Your task to perform on an android device: Open my contact list Image 0: 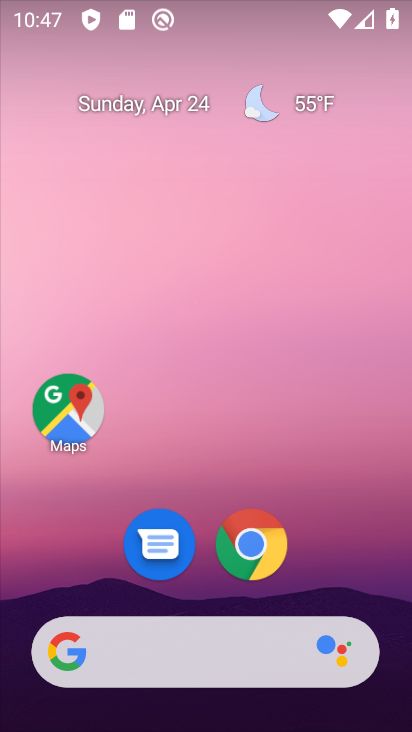
Step 0: drag from (336, 532) to (304, 190)
Your task to perform on an android device: Open my contact list Image 1: 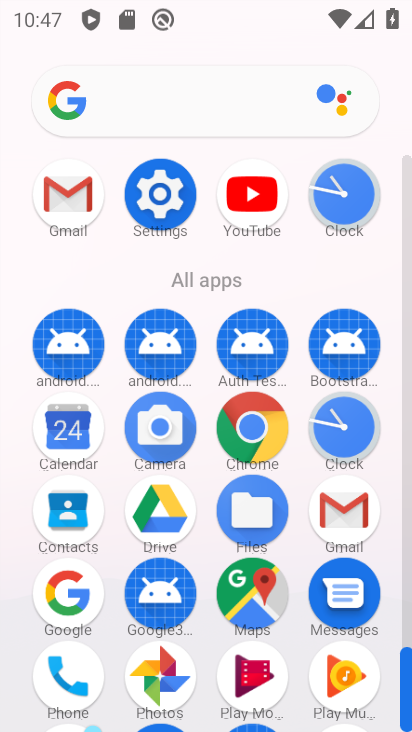
Step 1: click (72, 517)
Your task to perform on an android device: Open my contact list Image 2: 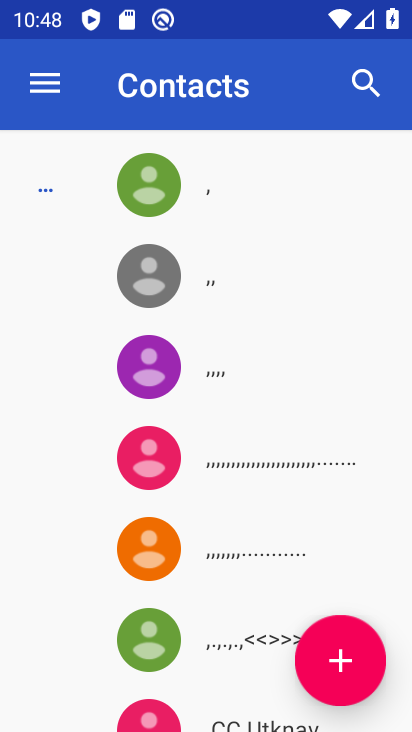
Step 2: drag from (81, 611) to (96, 243)
Your task to perform on an android device: Open my contact list Image 3: 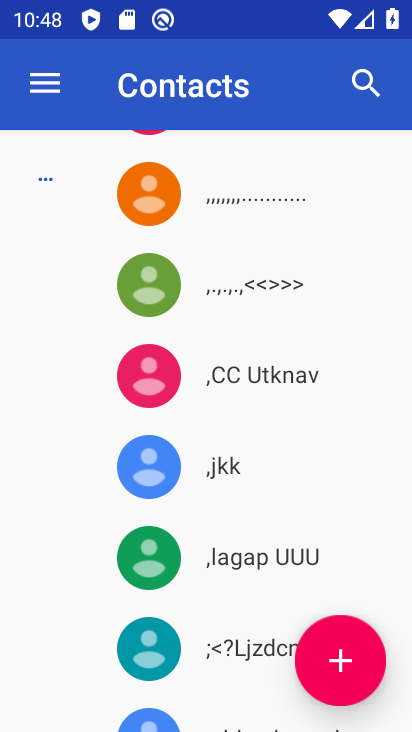
Step 3: drag from (86, 608) to (80, 291)
Your task to perform on an android device: Open my contact list Image 4: 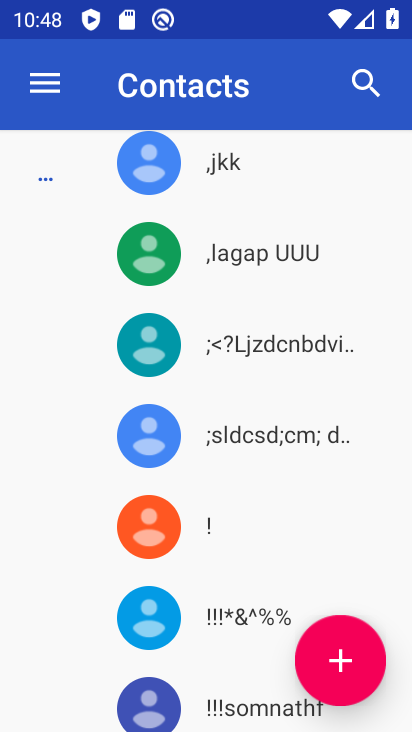
Step 4: drag from (54, 650) to (88, 281)
Your task to perform on an android device: Open my contact list Image 5: 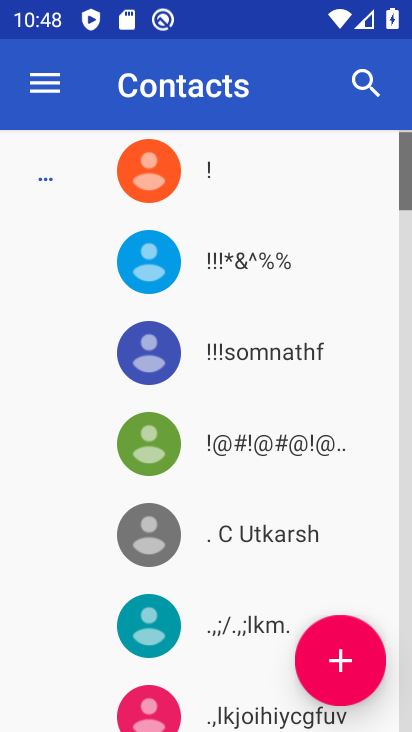
Step 5: drag from (60, 659) to (132, 332)
Your task to perform on an android device: Open my contact list Image 6: 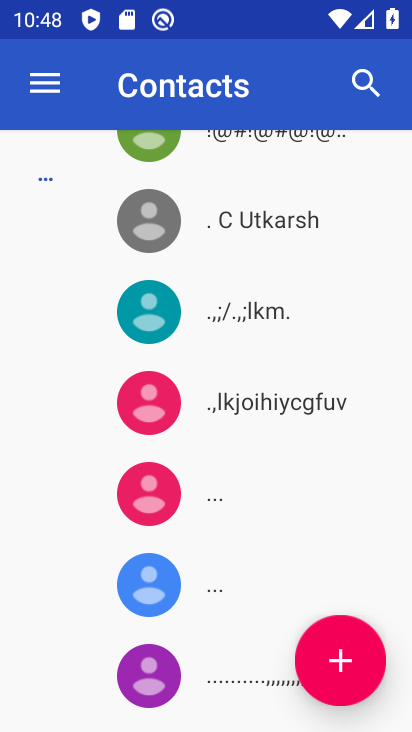
Step 6: drag from (204, 685) to (216, 312)
Your task to perform on an android device: Open my contact list Image 7: 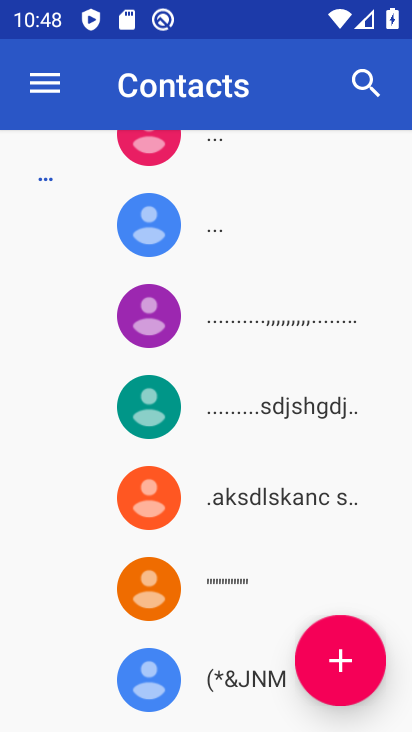
Step 7: drag from (263, 621) to (263, 195)
Your task to perform on an android device: Open my contact list Image 8: 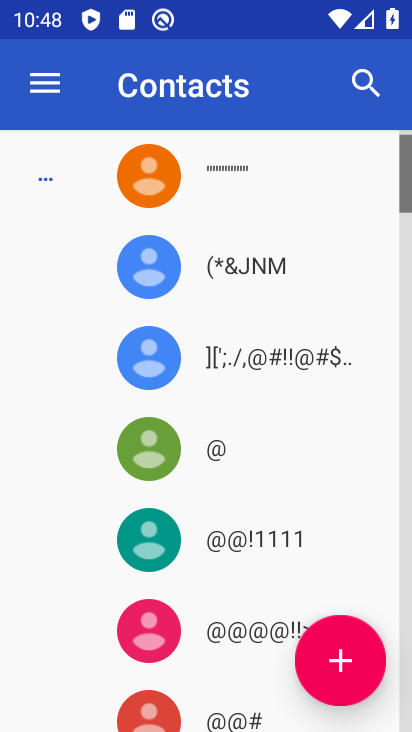
Step 8: drag from (207, 633) to (207, 212)
Your task to perform on an android device: Open my contact list Image 9: 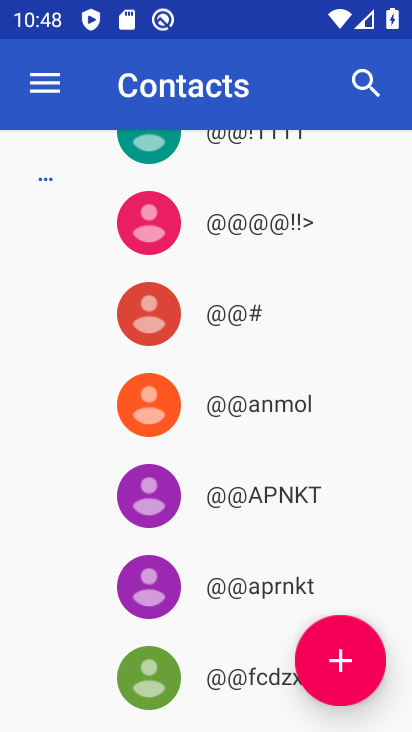
Step 9: drag from (405, 166) to (396, 448)
Your task to perform on an android device: Open my contact list Image 10: 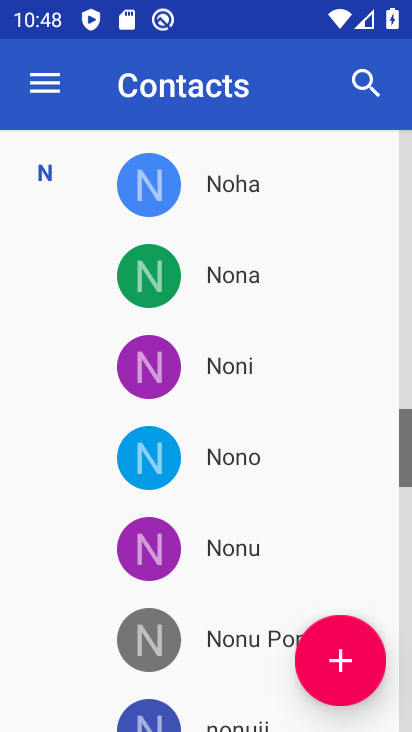
Step 10: drag from (279, 214) to (205, 645)
Your task to perform on an android device: Open my contact list Image 11: 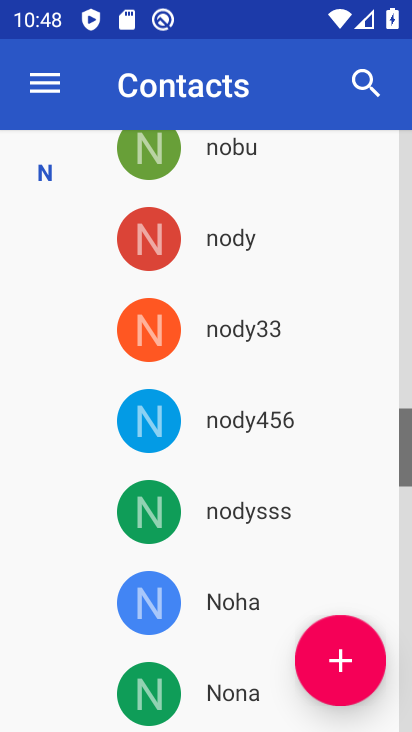
Step 11: drag from (207, 277) to (167, 632)
Your task to perform on an android device: Open my contact list Image 12: 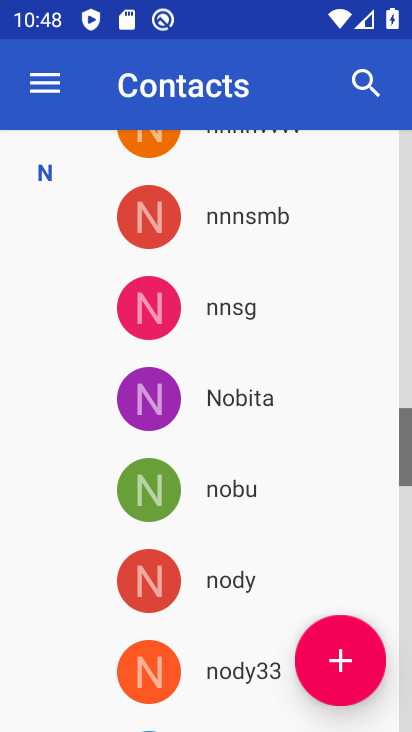
Step 12: drag from (232, 241) to (178, 636)
Your task to perform on an android device: Open my contact list Image 13: 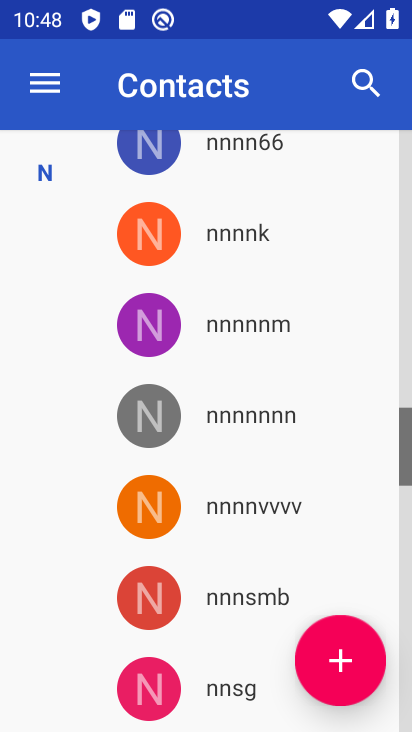
Step 13: drag from (211, 284) to (150, 621)
Your task to perform on an android device: Open my contact list Image 14: 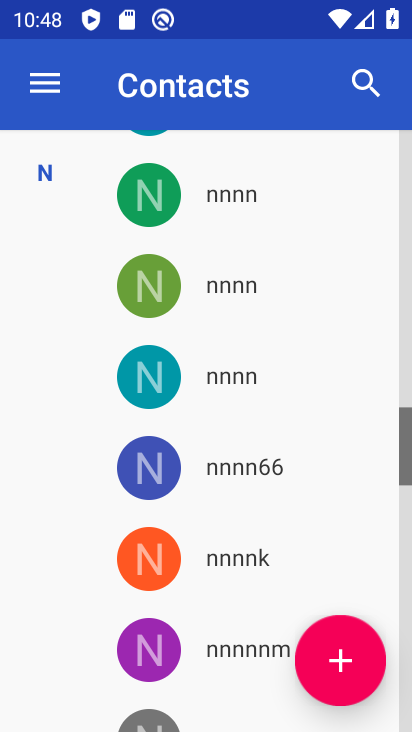
Step 14: drag from (251, 203) to (197, 551)
Your task to perform on an android device: Open my contact list Image 15: 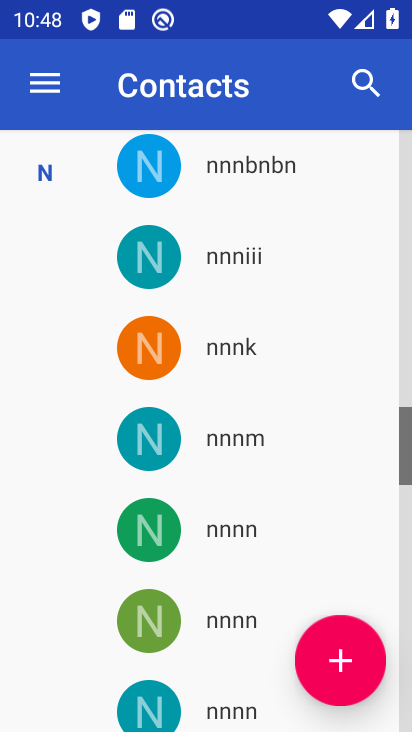
Step 15: drag from (172, 249) to (151, 563)
Your task to perform on an android device: Open my contact list Image 16: 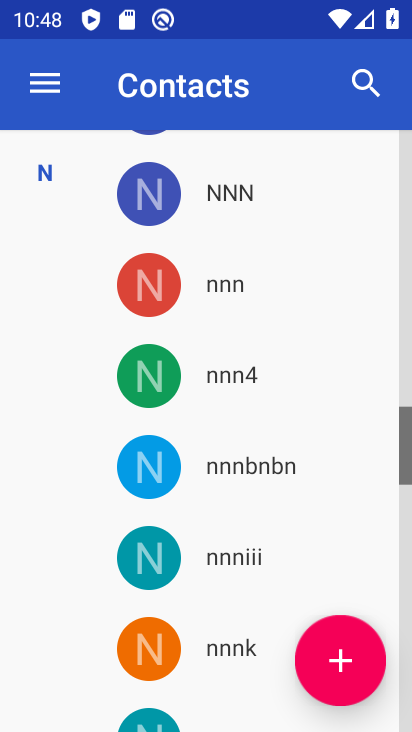
Step 16: click (405, 454)
Your task to perform on an android device: Open my contact list Image 17: 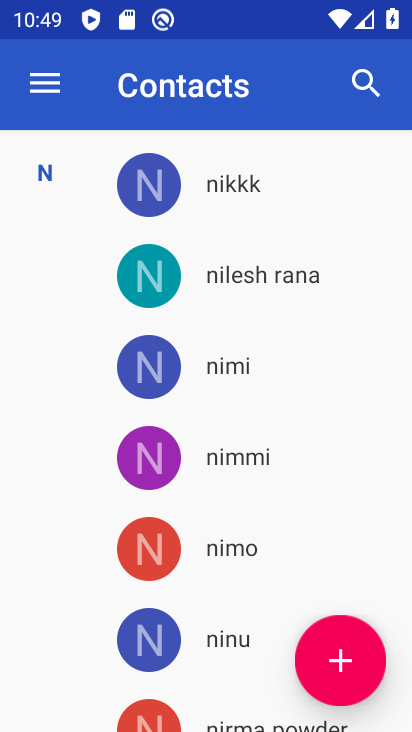
Step 17: task complete